Your task to perform on an android device: clear history in the chrome app Image 0: 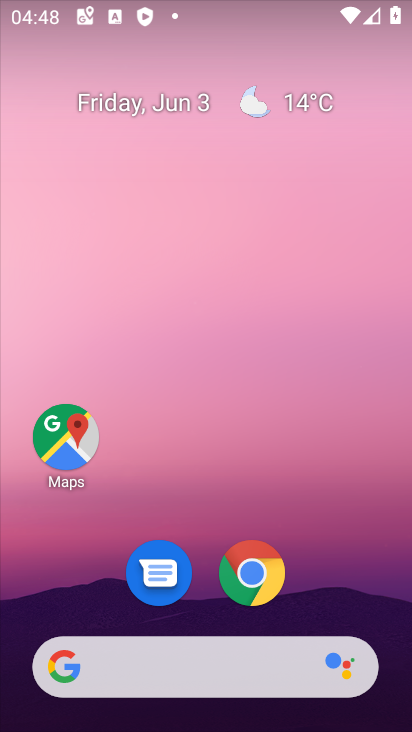
Step 0: drag from (316, 616) to (269, 309)
Your task to perform on an android device: clear history in the chrome app Image 1: 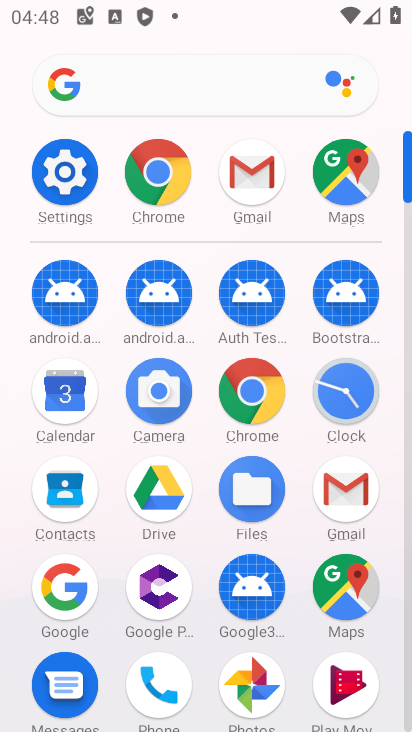
Step 1: click (168, 182)
Your task to perform on an android device: clear history in the chrome app Image 2: 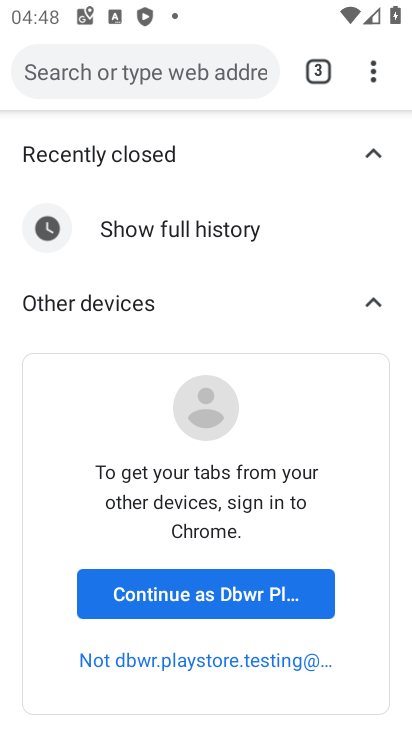
Step 2: click (377, 80)
Your task to perform on an android device: clear history in the chrome app Image 3: 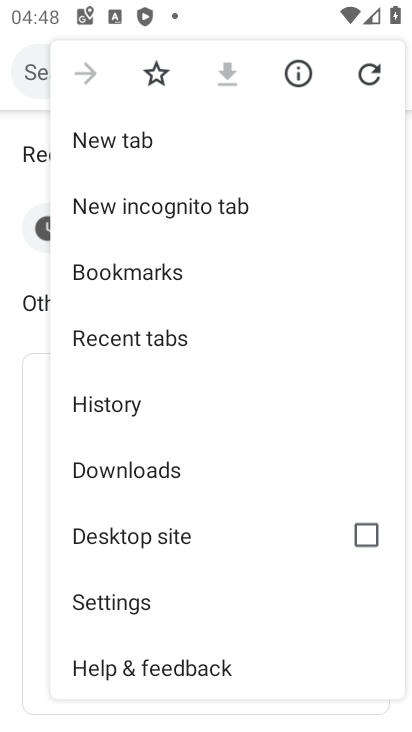
Step 3: click (133, 408)
Your task to perform on an android device: clear history in the chrome app Image 4: 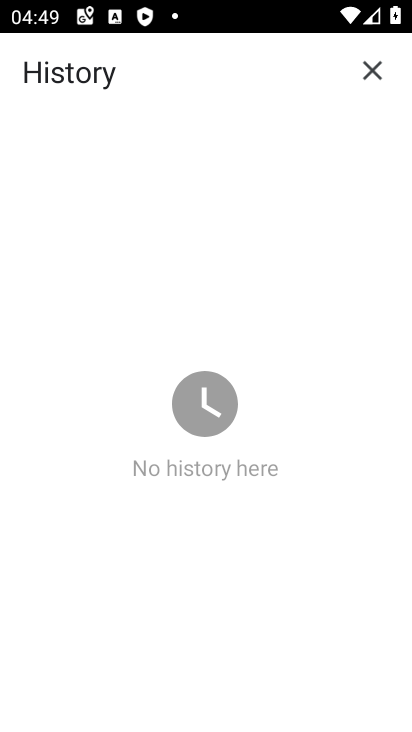
Step 4: task complete